Your task to perform on an android device: allow cookies in the chrome app Image 0: 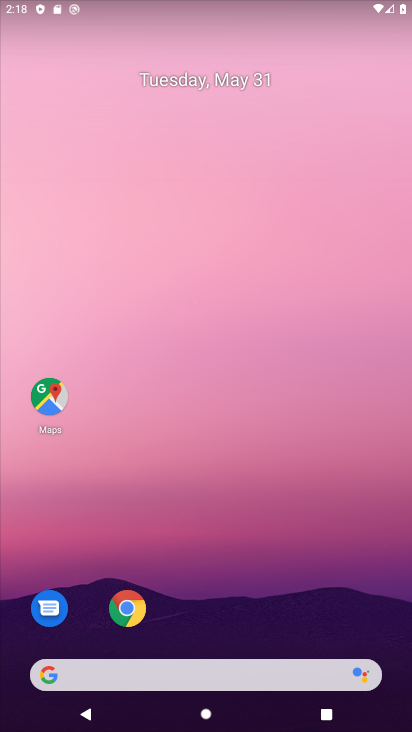
Step 0: click (125, 594)
Your task to perform on an android device: allow cookies in the chrome app Image 1: 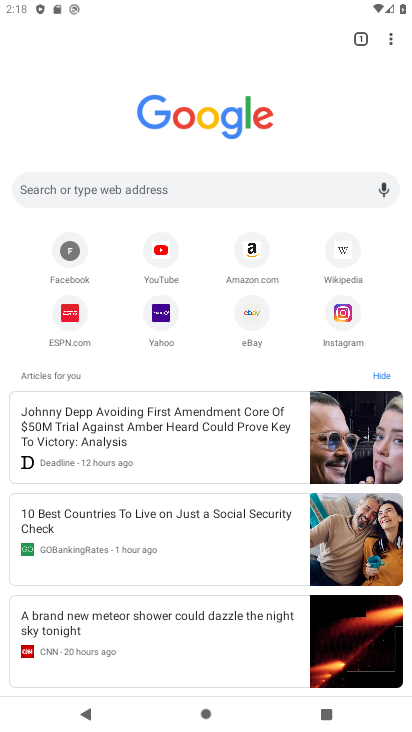
Step 1: click (387, 38)
Your task to perform on an android device: allow cookies in the chrome app Image 2: 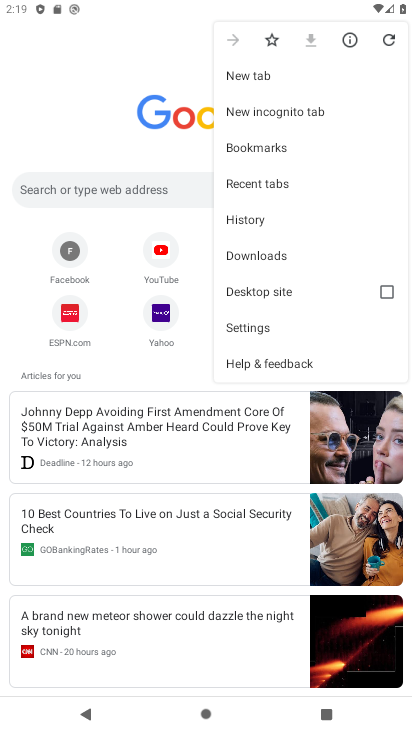
Step 2: click (263, 322)
Your task to perform on an android device: allow cookies in the chrome app Image 3: 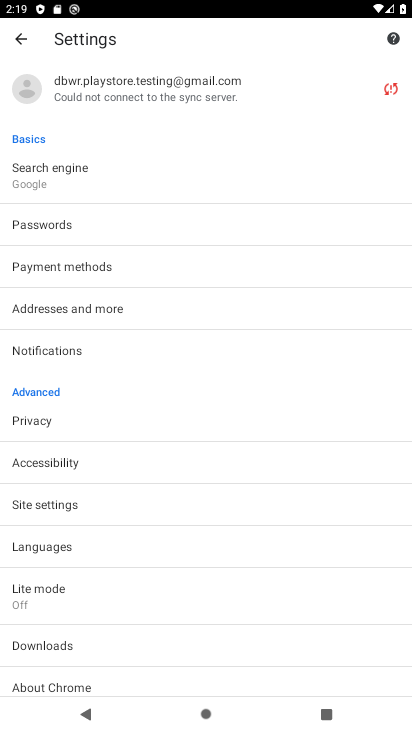
Step 3: click (63, 504)
Your task to perform on an android device: allow cookies in the chrome app Image 4: 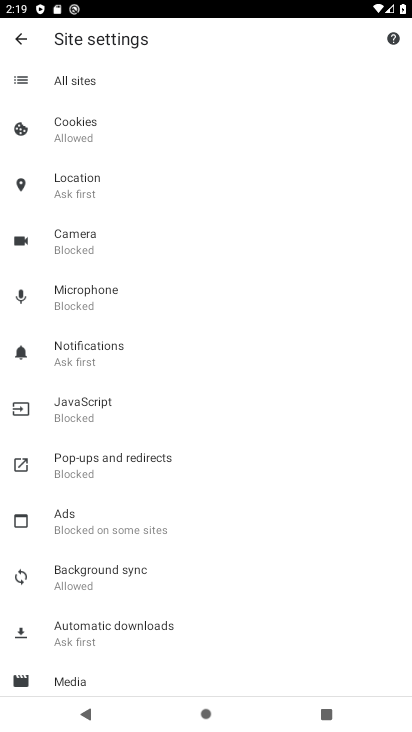
Step 4: click (89, 133)
Your task to perform on an android device: allow cookies in the chrome app Image 5: 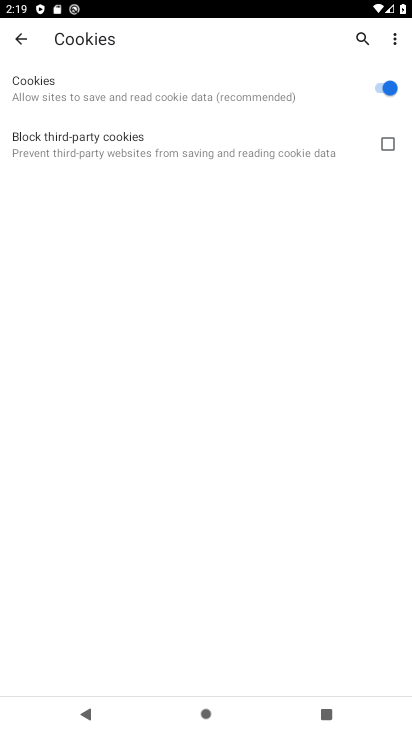
Step 5: task complete